Your task to perform on an android device: turn on the 24-hour format for clock Image 0: 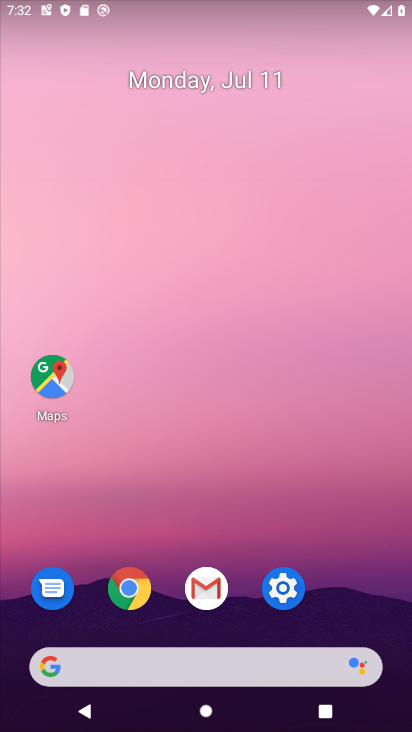
Step 0: drag from (256, 680) to (172, 207)
Your task to perform on an android device: turn on the 24-hour format for clock Image 1: 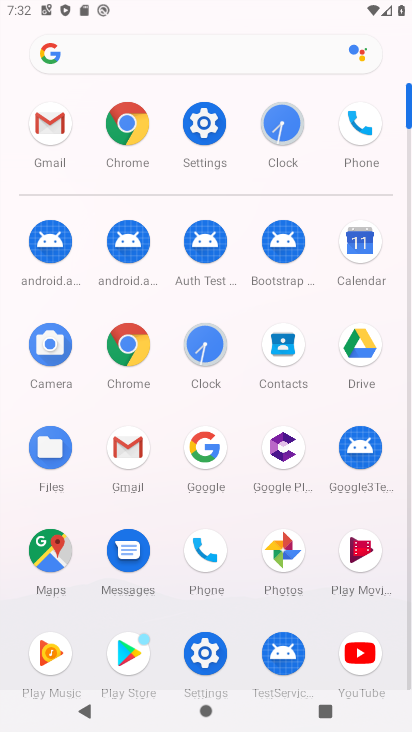
Step 1: click (206, 339)
Your task to perform on an android device: turn on the 24-hour format for clock Image 2: 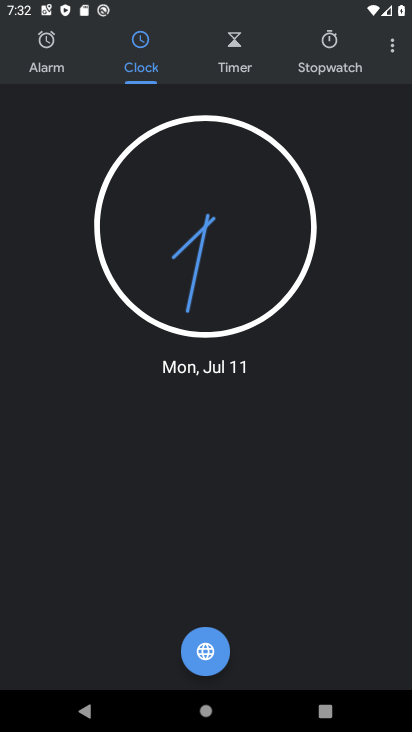
Step 2: click (384, 60)
Your task to perform on an android device: turn on the 24-hour format for clock Image 3: 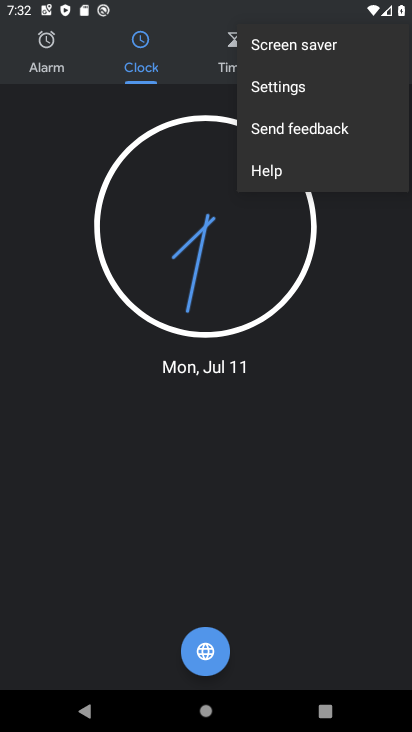
Step 3: click (270, 86)
Your task to perform on an android device: turn on the 24-hour format for clock Image 4: 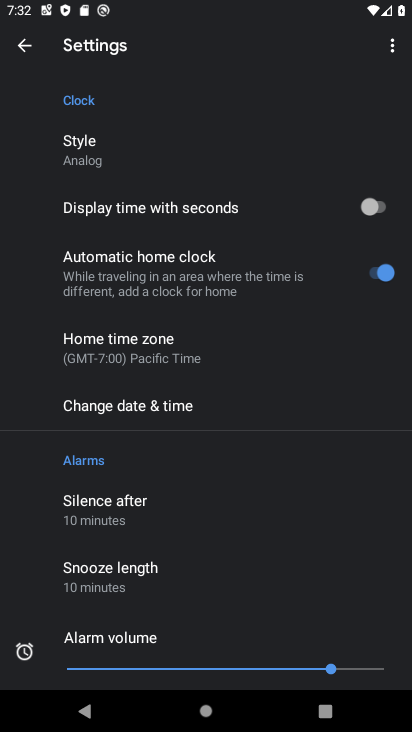
Step 4: click (179, 403)
Your task to perform on an android device: turn on the 24-hour format for clock Image 5: 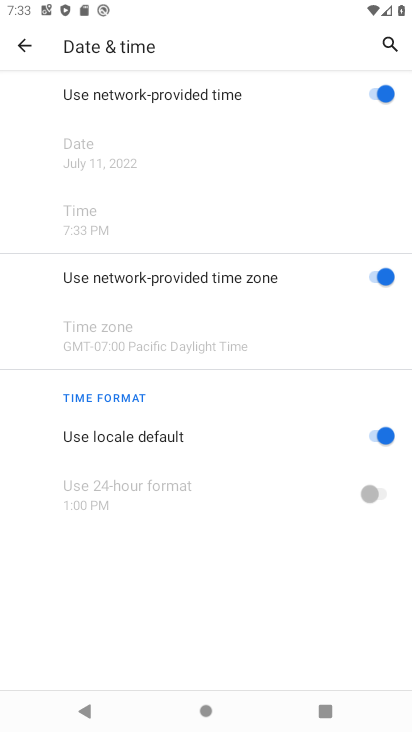
Step 5: click (383, 266)
Your task to perform on an android device: turn on the 24-hour format for clock Image 6: 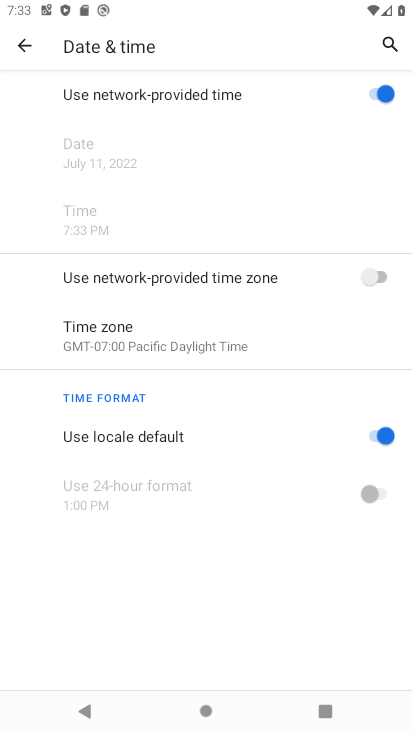
Step 6: click (251, 349)
Your task to perform on an android device: turn on the 24-hour format for clock Image 7: 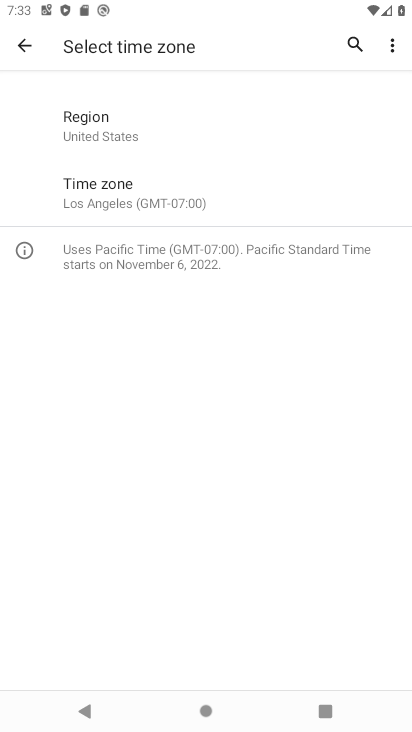
Step 7: click (25, 37)
Your task to perform on an android device: turn on the 24-hour format for clock Image 8: 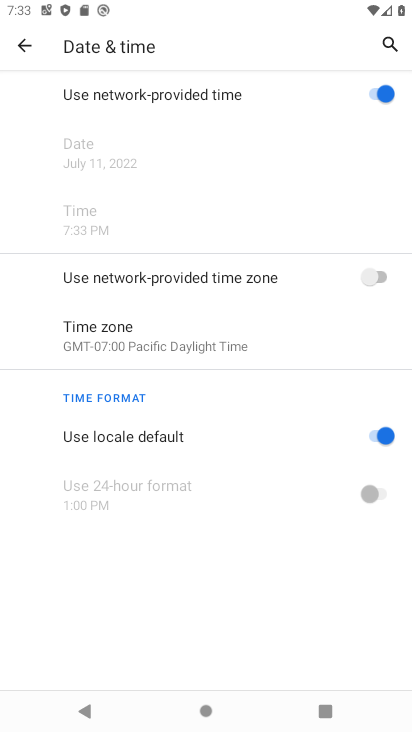
Step 8: click (386, 445)
Your task to perform on an android device: turn on the 24-hour format for clock Image 9: 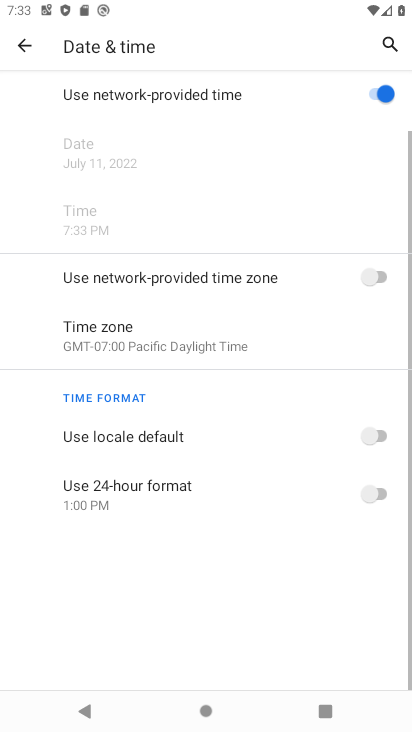
Step 9: click (380, 491)
Your task to perform on an android device: turn on the 24-hour format for clock Image 10: 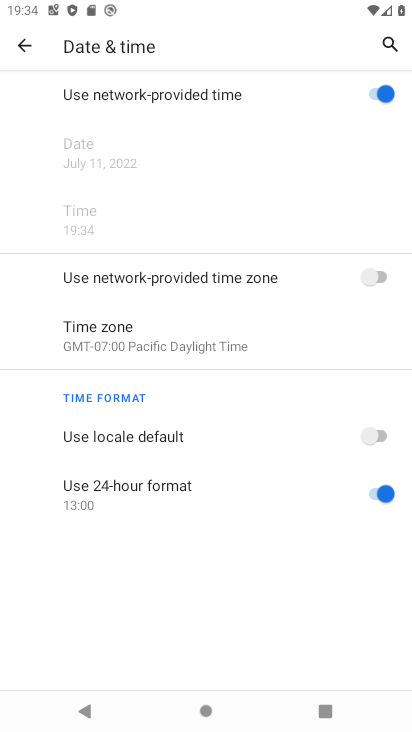
Step 10: task complete